Your task to perform on an android device: Turn off the flashlight Image 0: 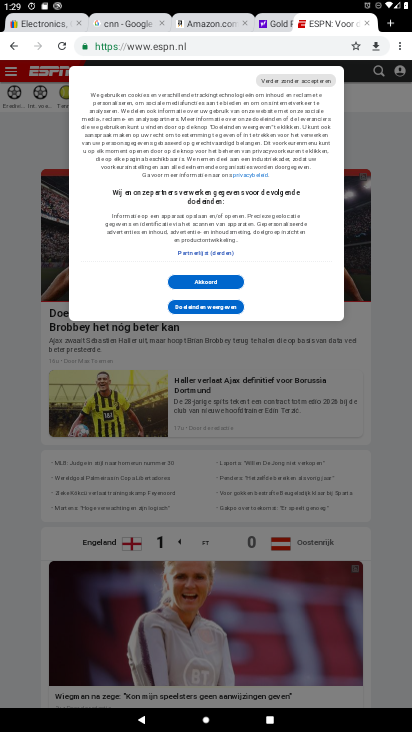
Step 0: drag from (196, 669) to (142, 127)
Your task to perform on an android device: Turn off the flashlight Image 1: 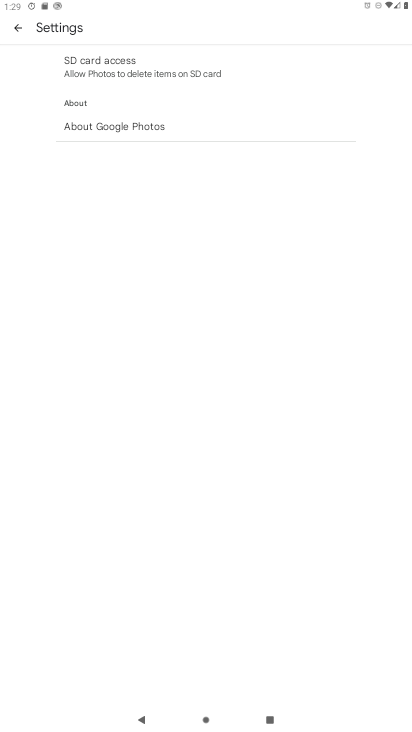
Step 1: press home button
Your task to perform on an android device: Turn off the flashlight Image 2: 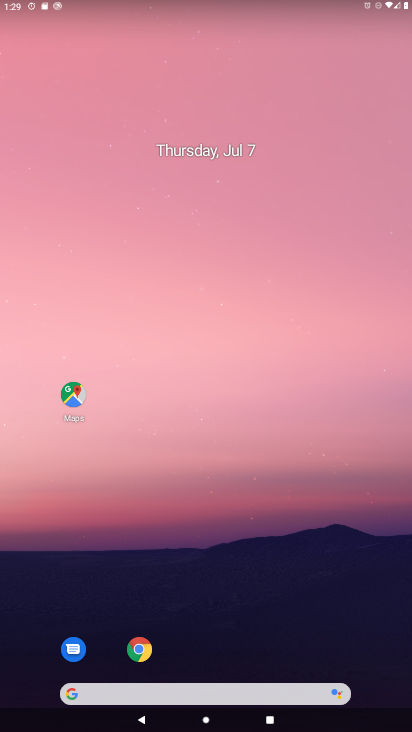
Step 2: drag from (204, 677) to (202, 64)
Your task to perform on an android device: Turn off the flashlight Image 3: 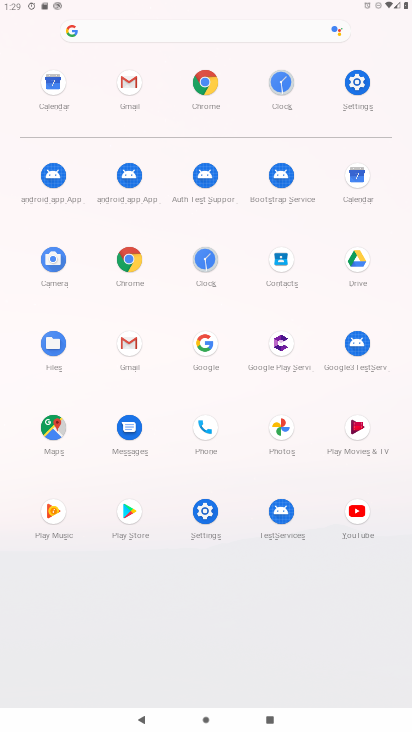
Step 3: click (207, 519)
Your task to perform on an android device: Turn off the flashlight Image 4: 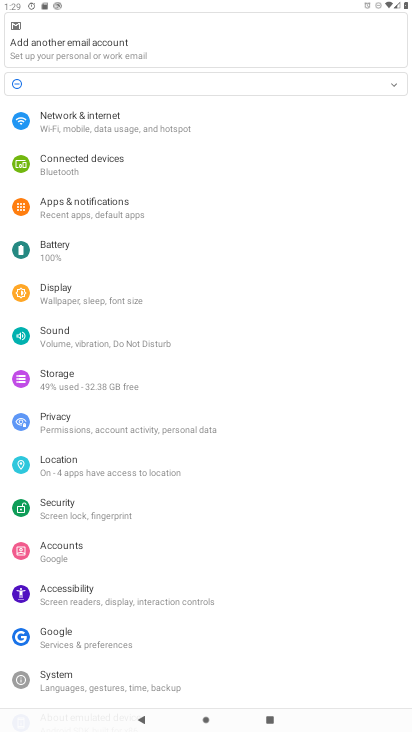
Step 4: task complete